Your task to perform on an android device: Go to eBay Image 0: 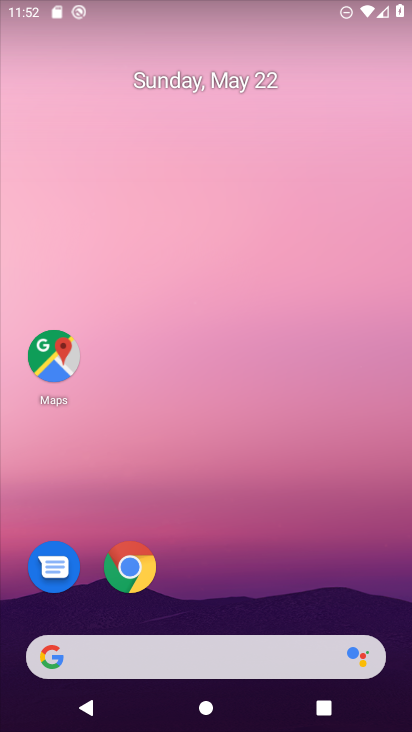
Step 0: click (126, 563)
Your task to perform on an android device: Go to eBay Image 1: 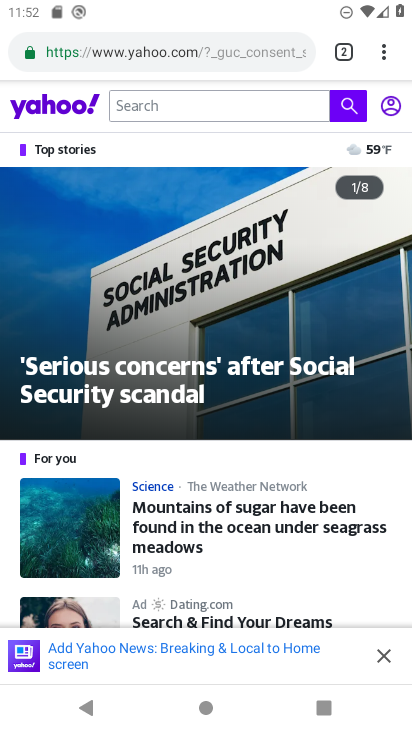
Step 1: click (126, 563)
Your task to perform on an android device: Go to eBay Image 2: 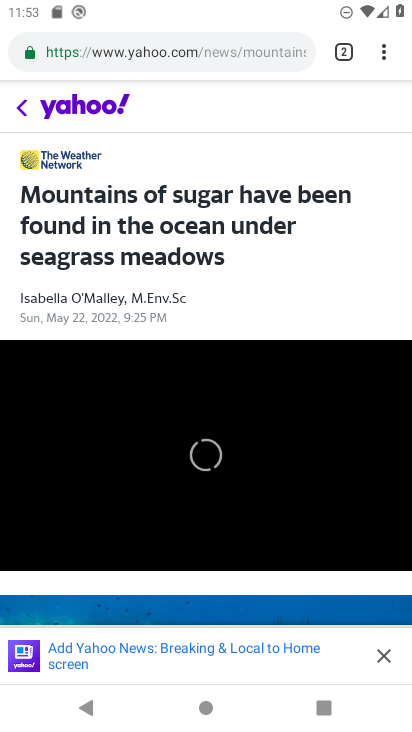
Step 2: click (338, 48)
Your task to perform on an android device: Go to eBay Image 3: 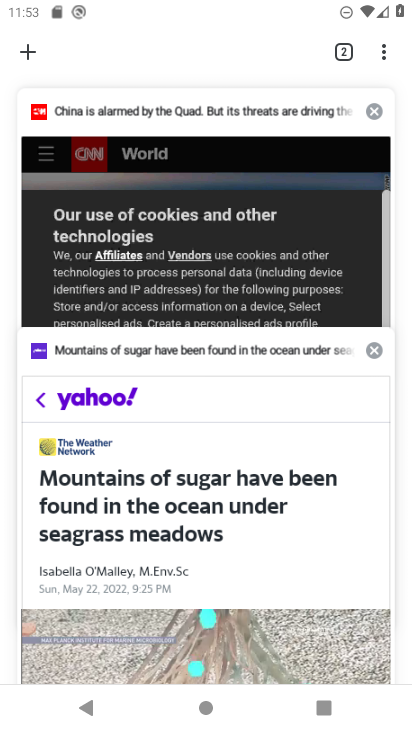
Step 3: click (228, 189)
Your task to perform on an android device: Go to eBay Image 4: 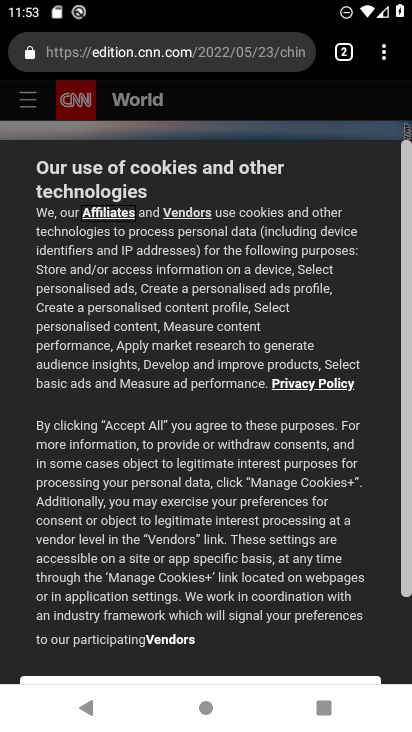
Step 4: click (228, 189)
Your task to perform on an android device: Go to eBay Image 5: 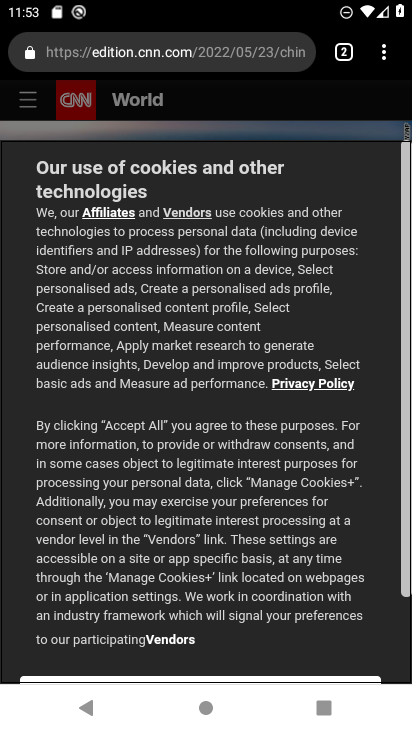
Step 5: click (182, 58)
Your task to perform on an android device: Go to eBay Image 6: 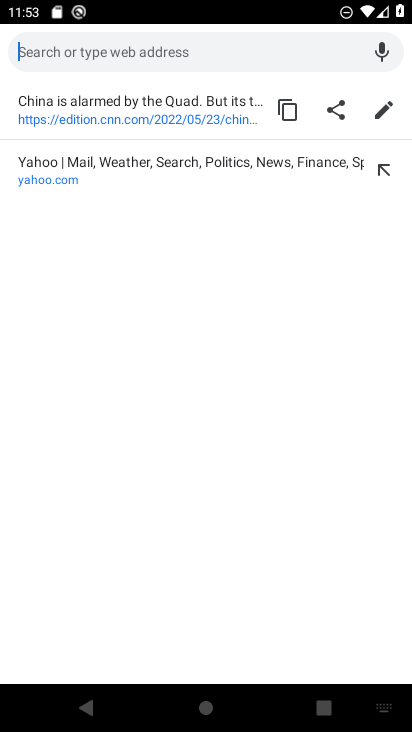
Step 6: type "ebay"
Your task to perform on an android device: Go to eBay Image 7: 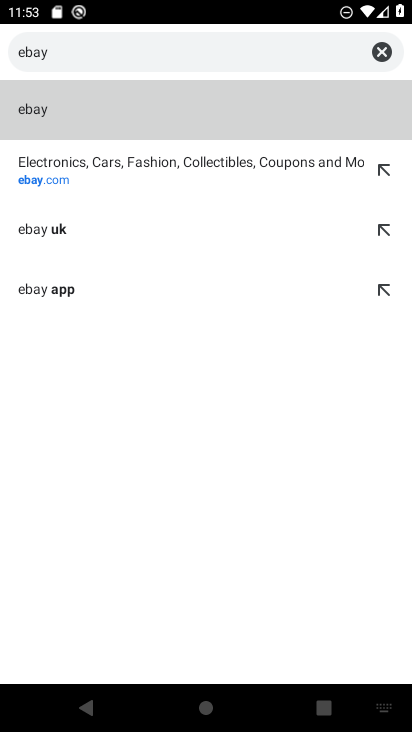
Step 7: click (104, 157)
Your task to perform on an android device: Go to eBay Image 8: 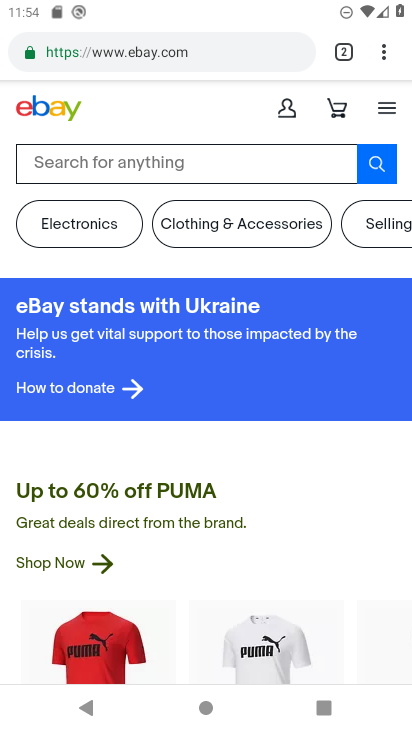
Step 8: task complete